Your task to perform on an android device: Search for seafood restaurants on Google Maps Image 0: 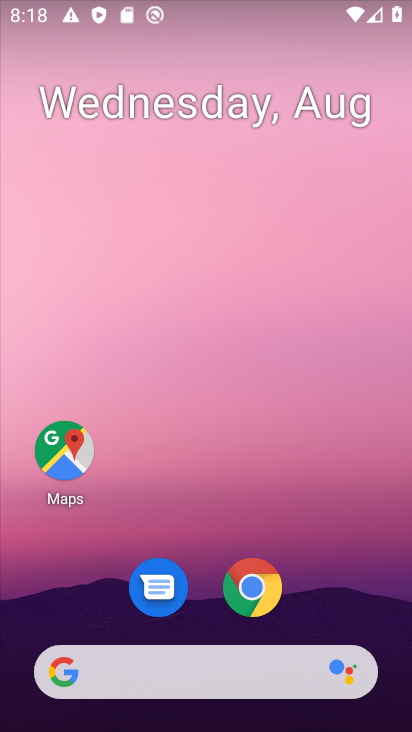
Step 0: drag from (244, 620) to (236, 82)
Your task to perform on an android device: Search for seafood restaurants on Google Maps Image 1: 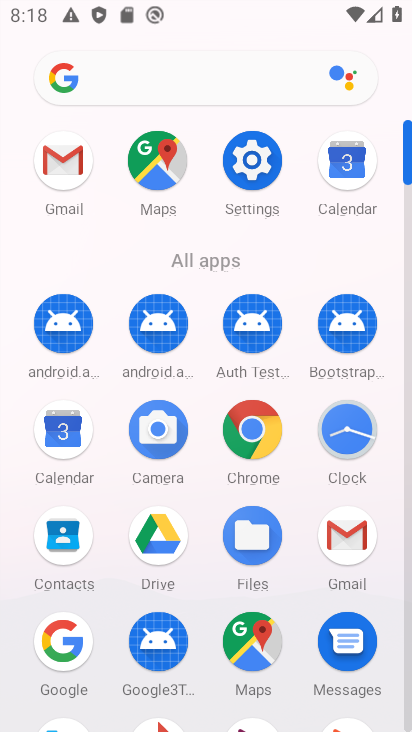
Step 1: click (244, 629)
Your task to perform on an android device: Search for seafood restaurants on Google Maps Image 2: 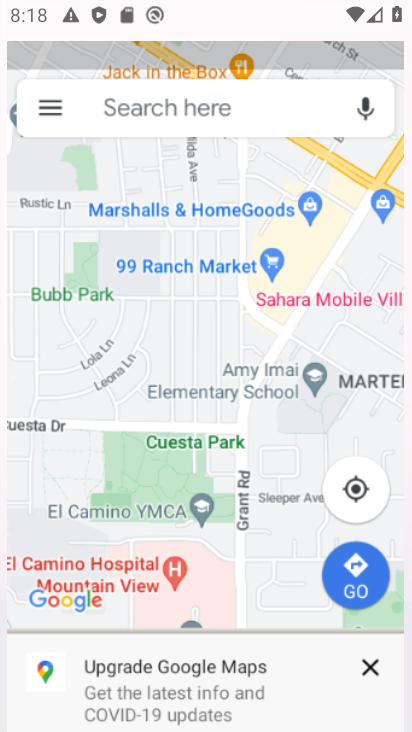
Step 2: click (246, 632)
Your task to perform on an android device: Search for seafood restaurants on Google Maps Image 3: 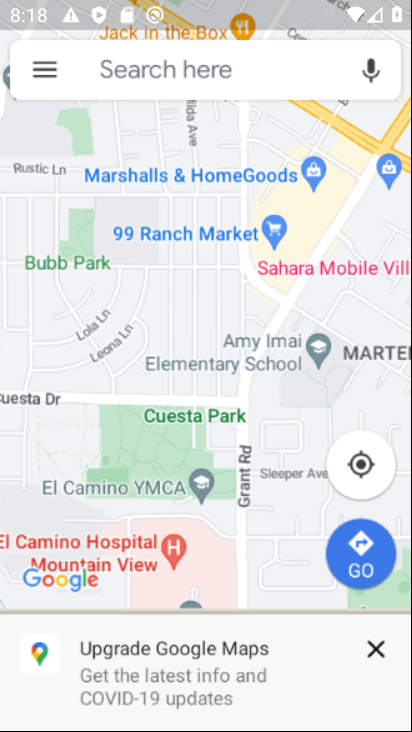
Step 3: click (246, 632)
Your task to perform on an android device: Search for seafood restaurants on Google Maps Image 4: 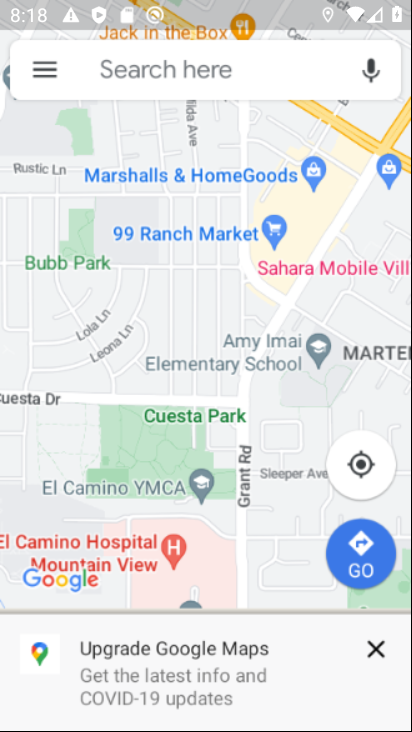
Step 4: click (246, 633)
Your task to perform on an android device: Search for seafood restaurants on Google Maps Image 5: 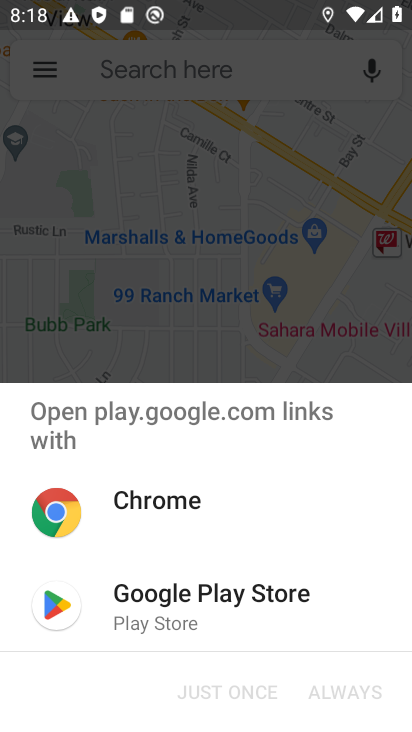
Step 5: click (191, 309)
Your task to perform on an android device: Search for seafood restaurants on Google Maps Image 6: 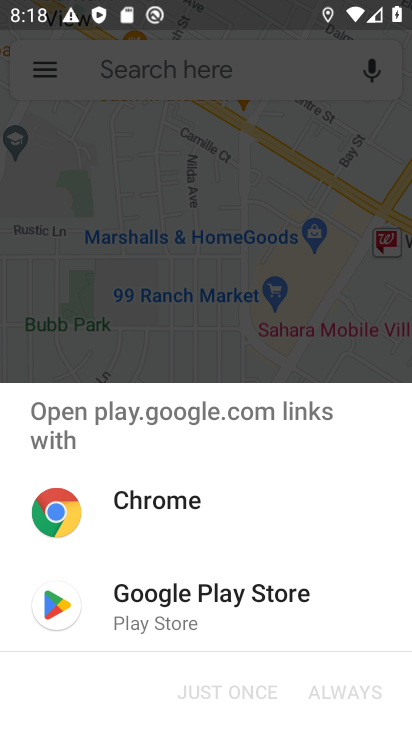
Step 6: click (209, 343)
Your task to perform on an android device: Search for seafood restaurants on Google Maps Image 7: 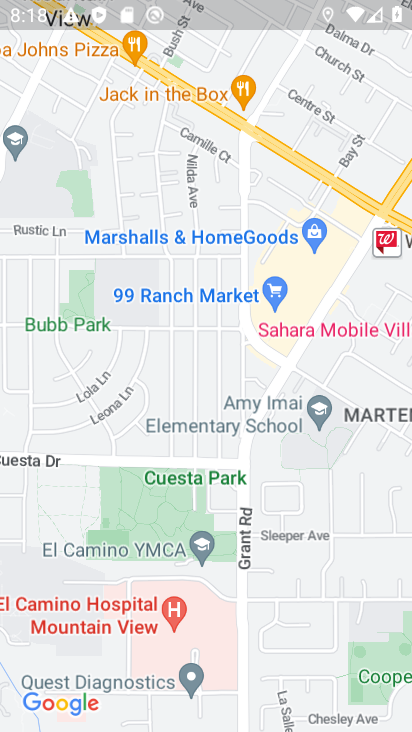
Step 7: click (133, 218)
Your task to perform on an android device: Search for seafood restaurants on Google Maps Image 8: 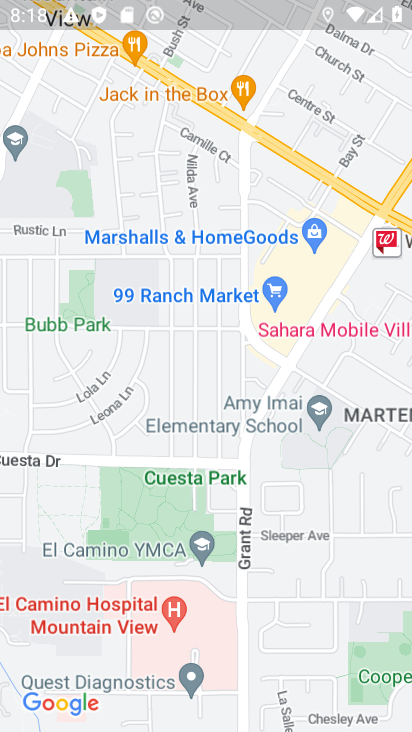
Step 8: click (141, 225)
Your task to perform on an android device: Search for seafood restaurants on Google Maps Image 9: 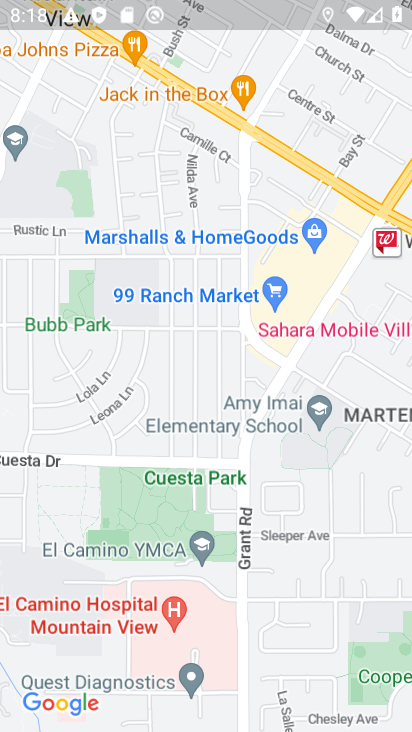
Step 9: click (147, 217)
Your task to perform on an android device: Search for seafood restaurants on Google Maps Image 10: 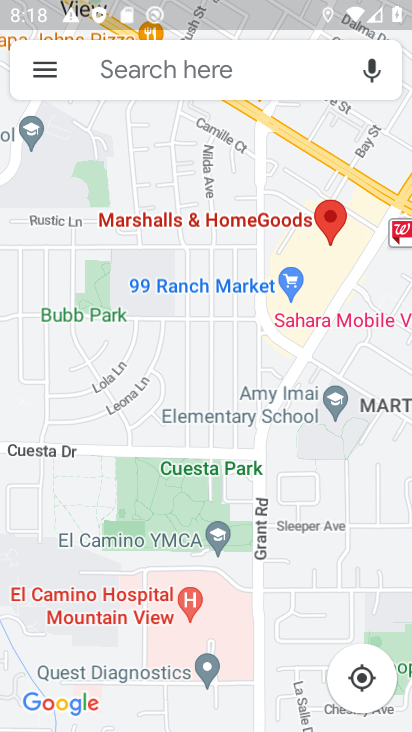
Step 10: click (122, 78)
Your task to perform on an android device: Search for seafood restaurants on Google Maps Image 11: 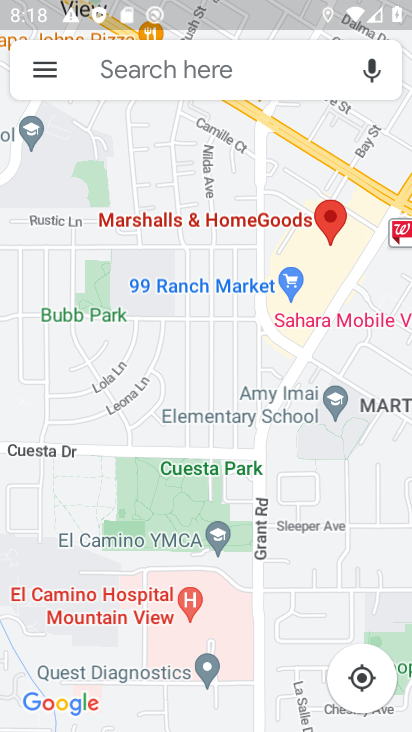
Step 11: click (121, 77)
Your task to perform on an android device: Search for seafood restaurants on Google Maps Image 12: 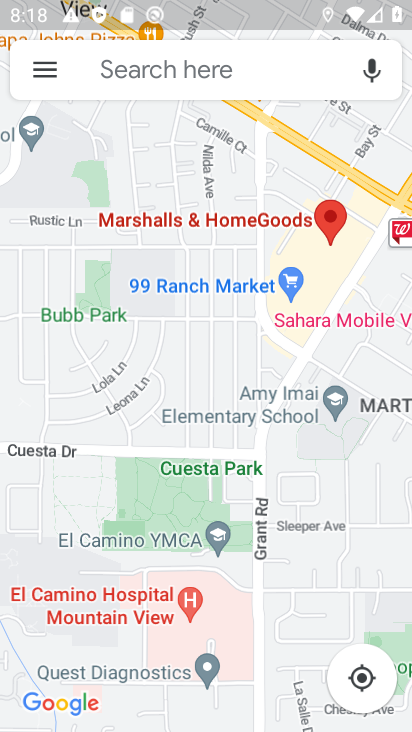
Step 12: click (121, 77)
Your task to perform on an android device: Search for seafood restaurants on Google Maps Image 13: 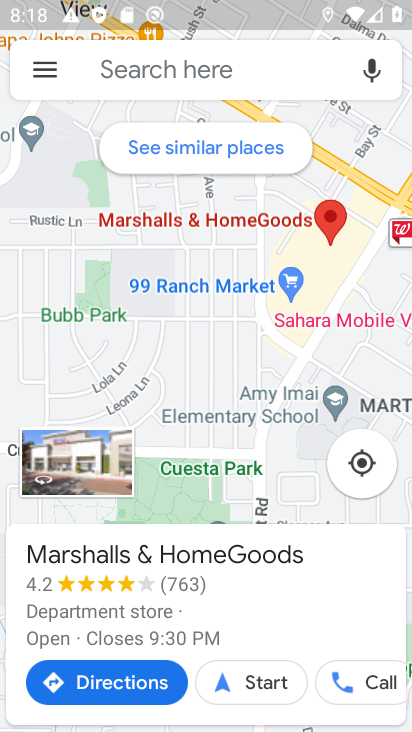
Step 13: click (120, 79)
Your task to perform on an android device: Search for seafood restaurants on Google Maps Image 14: 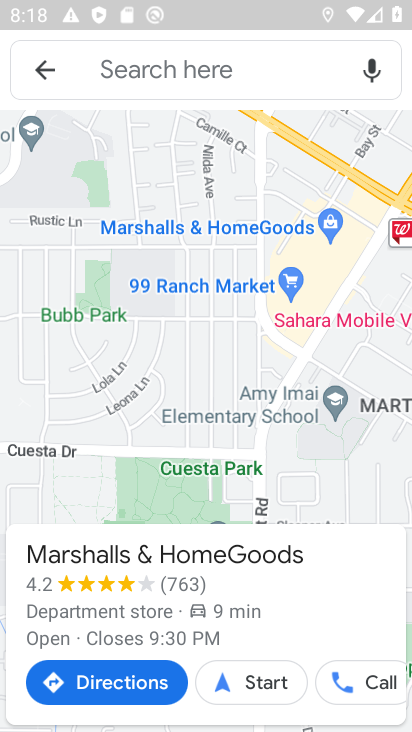
Step 14: click (120, 79)
Your task to perform on an android device: Search for seafood restaurants on Google Maps Image 15: 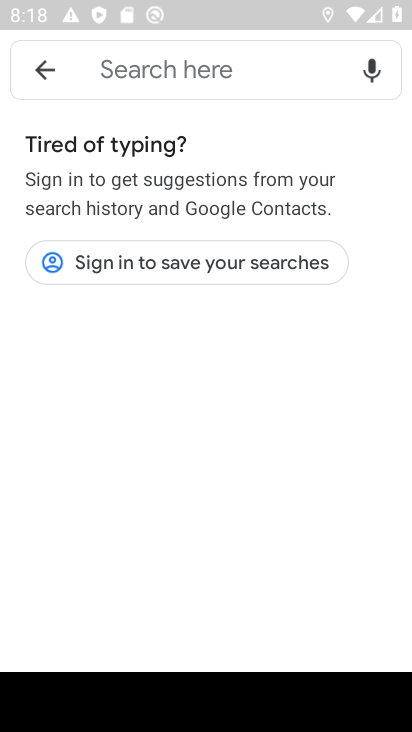
Step 15: type "pizza restaurants"
Your task to perform on an android device: Search for seafood restaurants on Google Maps Image 16: 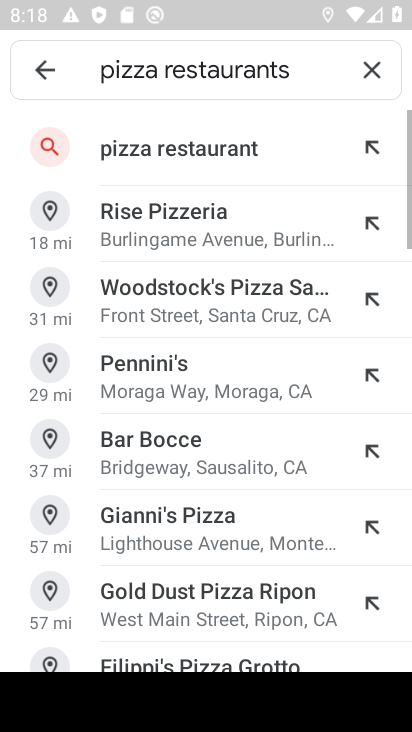
Step 16: click (213, 141)
Your task to perform on an android device: Search for seafood restaurants on Google Maps Image 17: 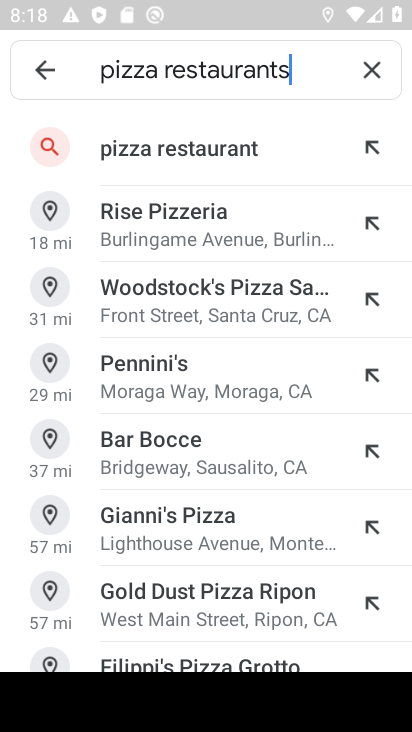
Step 17: click (213, 142)
Your task to perform on an android device: Search for seafood restaurants on Google Maps Image 18: 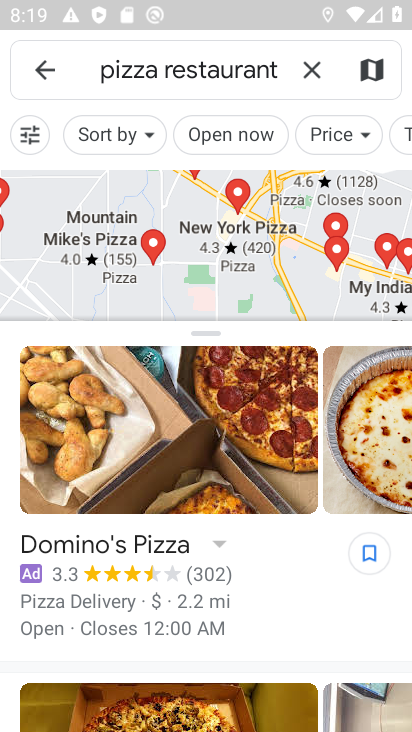
Step 18: click (159, 60)
Your task to perform on an android device: Search for seafood restaurants on Google Maps Image 19: 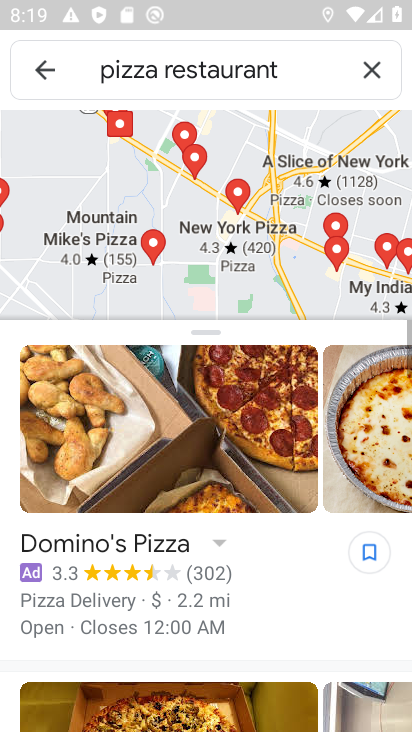
Step 19: click (160, 67)
Your task to perform on an android device: Search for seafood restaurants on Google Maps Image 20: 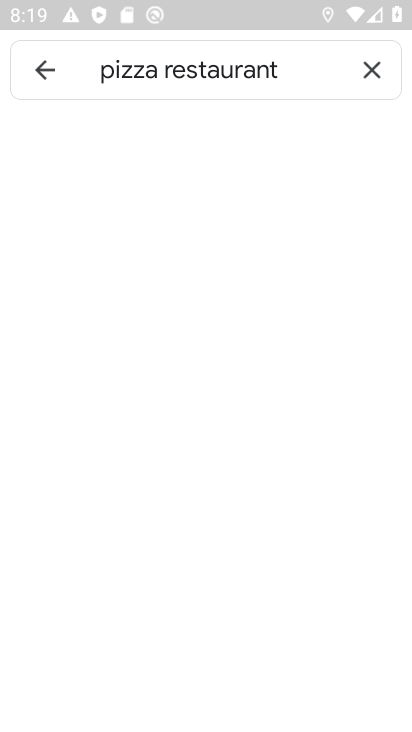
Step 20: click (163, 60)
Your task to perform on an android device: Search for seafood restaurants on Google Maps Image 21: 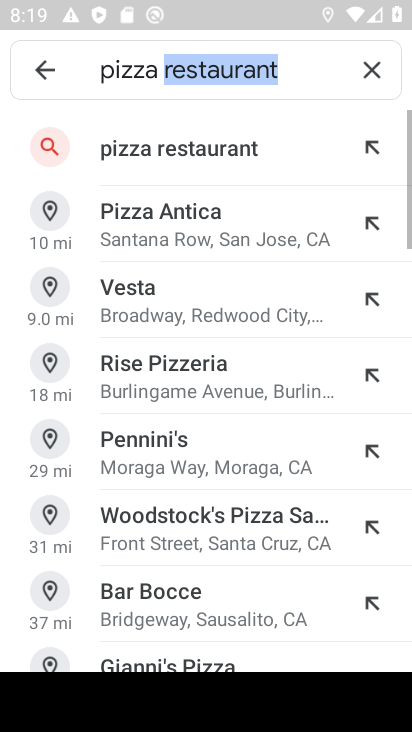
Step 21: click (366, 62)
Your task to perform on an android device: Search for seafood restaurants on Google Maps Image 22: 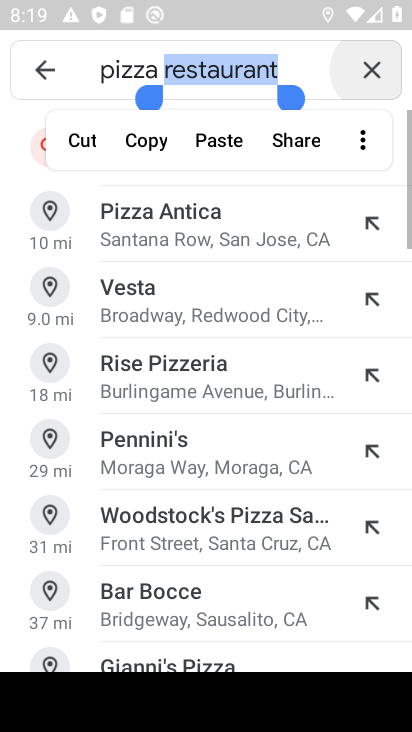
Step 22: click (366, 62)
Your task to perform on an android device: Search for seafood restaurants on Google Maps Image 23: 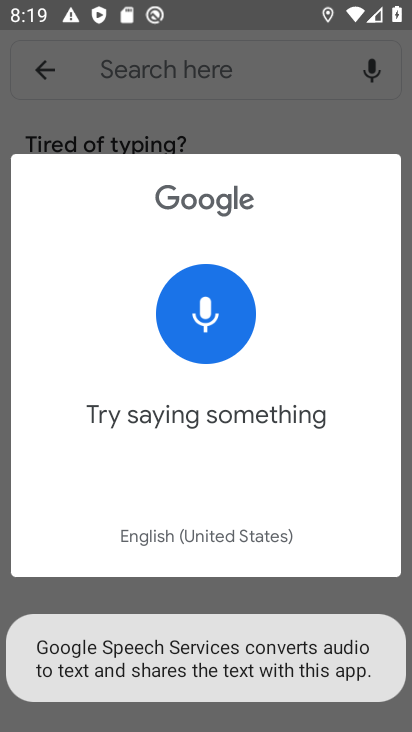
Step 23: click (212, 96)
Your task to perform on an android device: Search for seafood restaurants on Google Maps Image 24: 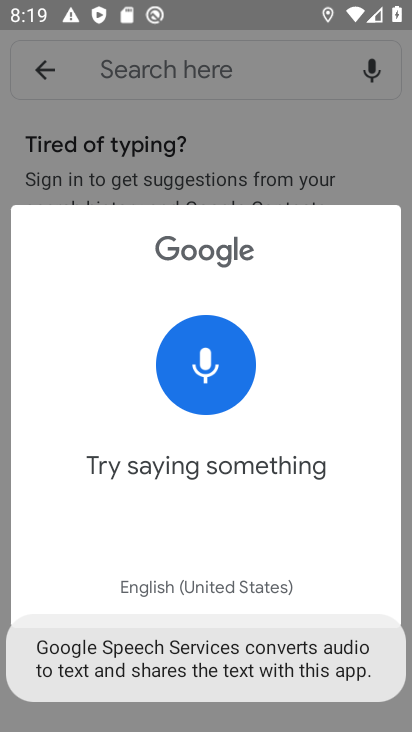
Step 24: click (243, 125)
Your task to perform on an android device: Search for seafood restaurants on Google Maps Image 25: 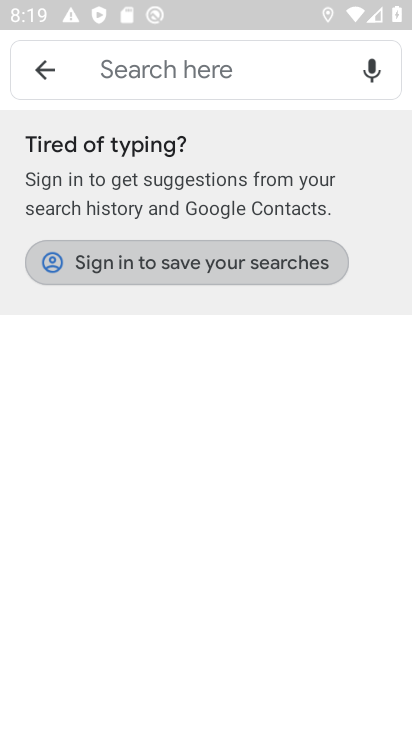
Step 25: click (244, 112)
Your task to perform on an android device: Search for seafood restaurants on Google Maps Image 26: 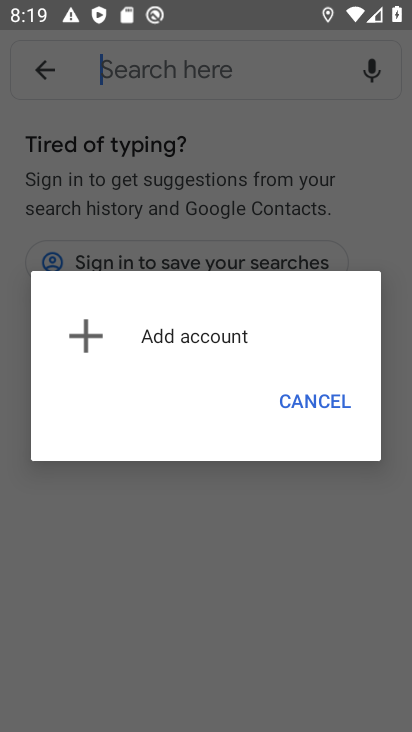
Step 26: click (115, 73)
Your task to perform on an android device: Search for seafood restaurants on Google Maps Image 27: 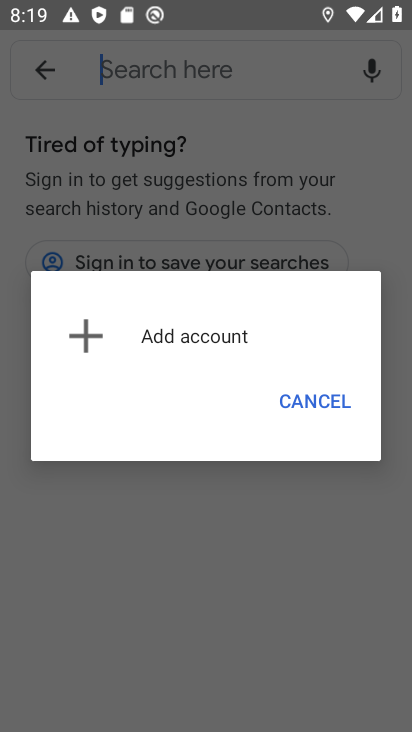
Step 27: click (115, 73)
Your task to perform on an android device: Search for seafood restaurants on Google Maps Image 28: 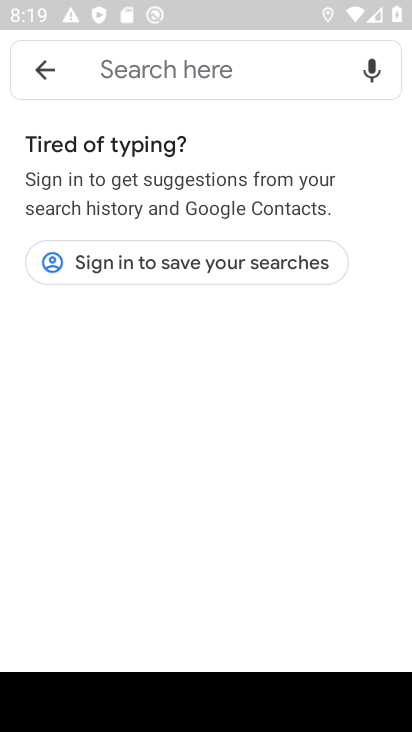
Step 28: type "seafood restaurants"
Your task to perform on an android device: Search for seafood restaurants on Google Maps Image 29: 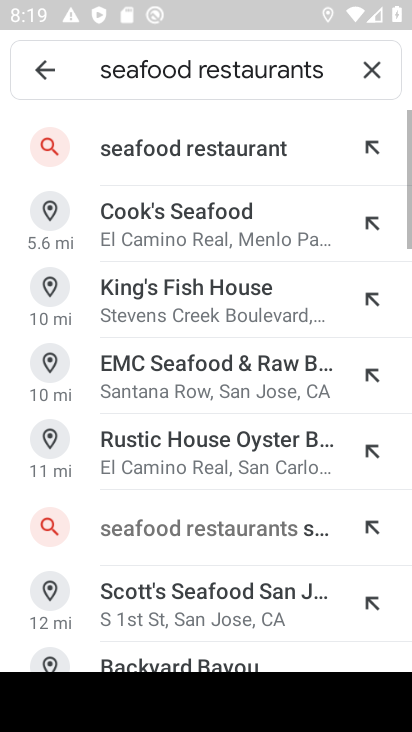
Step 29: click (160, 153)
Your task to perform on an android device: Search for seafood restaurants on Google Maps Image 30: 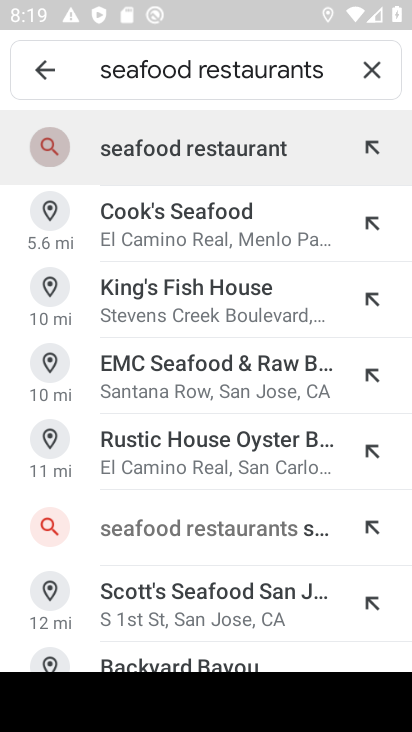
Step 30: click (168, 138)
Your task to perform on an android device: Search for seafood restaurants on Google Maps Image 31: 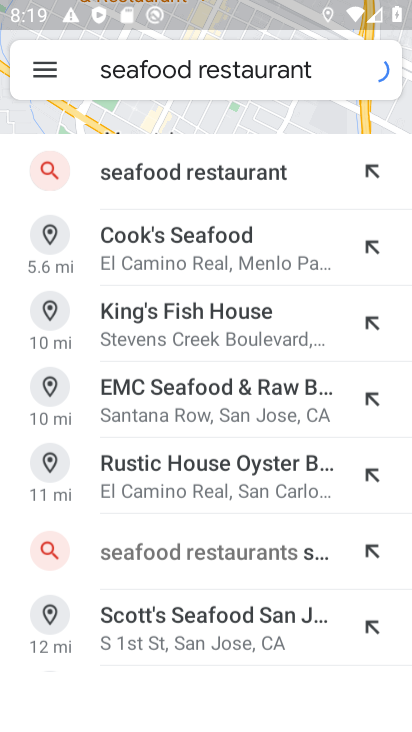
Step 31: click (167, 139)
Your task to perform on an android device: Search for seafood restaurants on Google Maps Image 32: 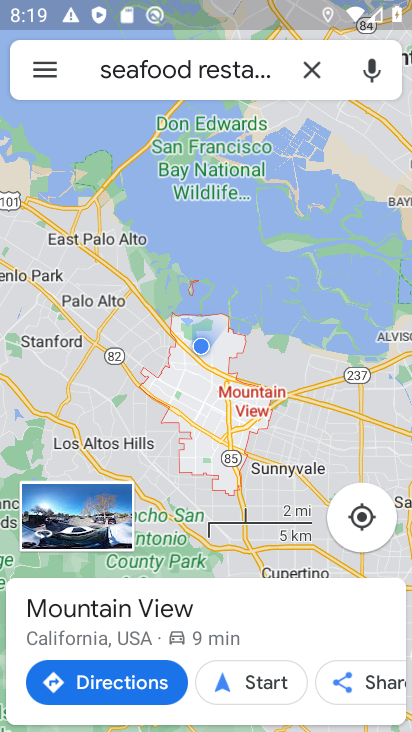
Step 32: task complete